Your task to perform on an android device: change your default location settings in chrome Image 0: 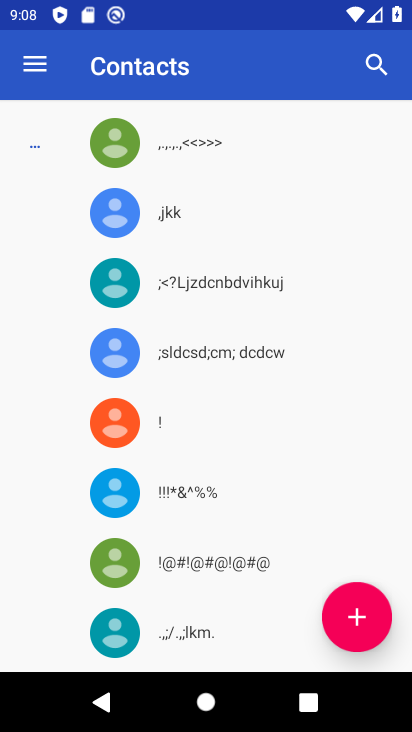
Step 0: press home button
Your task to perform on an android device: change your default location settings in chrome Image 1: 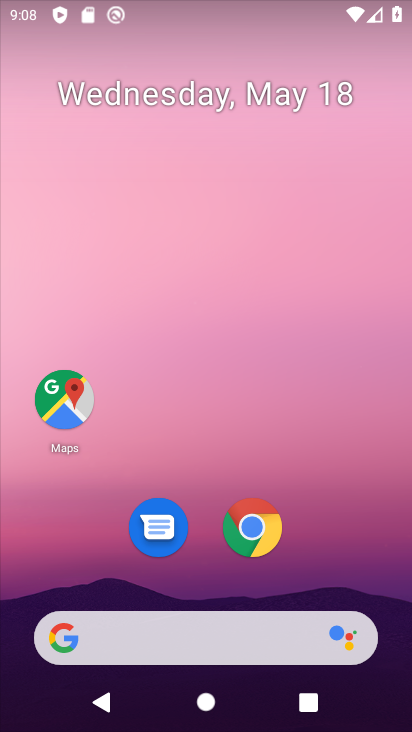
Step 1: click (261, 525)
Your task to perform on an android device: change your default location settings in chrome Image 2: 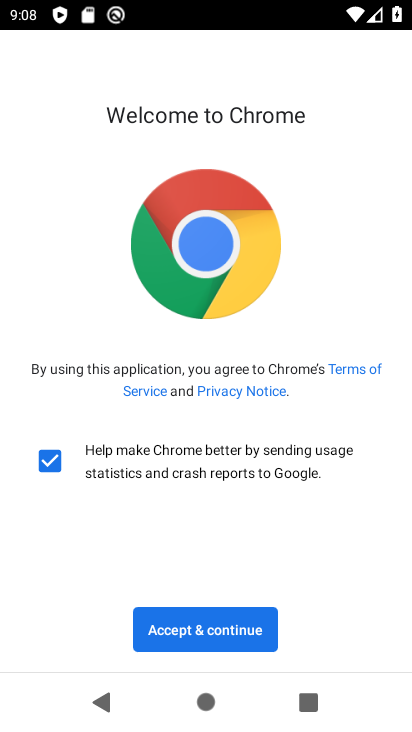
Step 2: click (233, 621)
Your task to perform on an android device: change your default location settings in chrome Image 3: 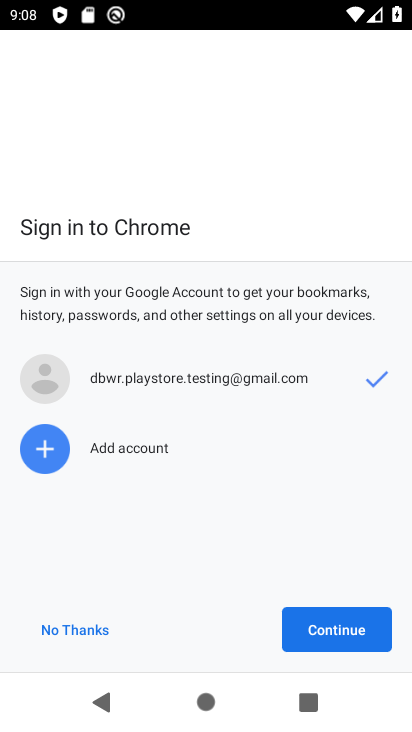
Step 3: click (347, 633)
Your task to perform on an android device: change your default location settings in chrome Image 4: 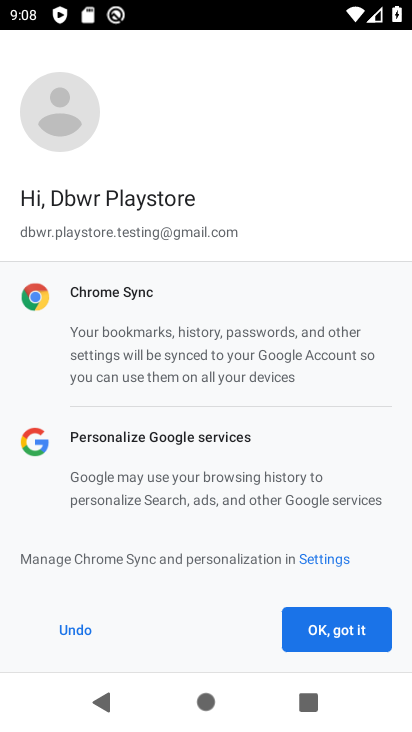
Step 4: click (347, 633)
Your task to perform on an android device: change your default location settings in chrome Image 5: 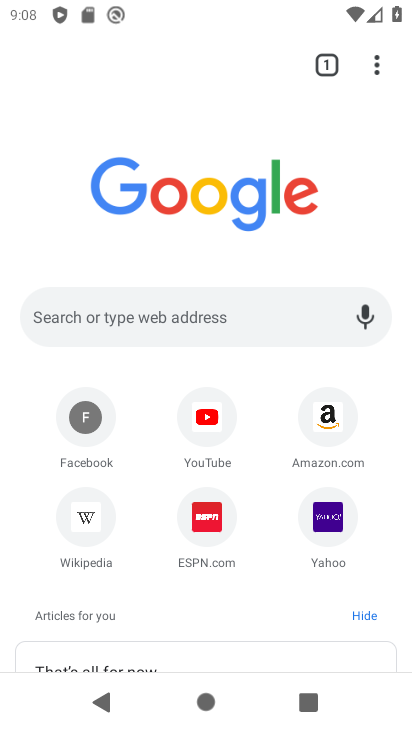
Step 5: click (380, 73)
Your task to perform on an android device: change your default location settings in chrome Image 6: 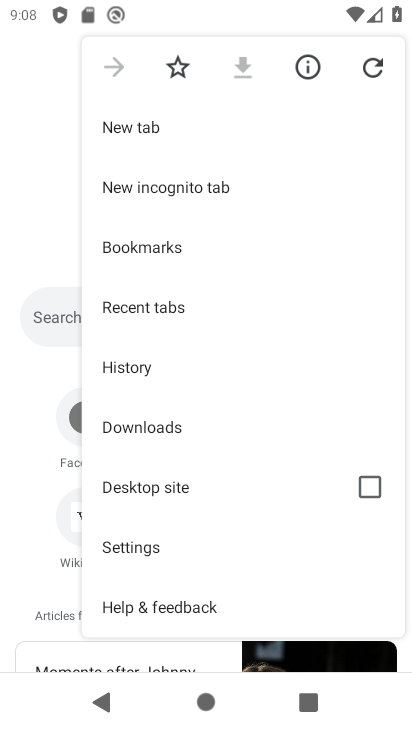
Step 6: click (158, 545)
Your task to perform on an android device: change your default location settings in chrome Image 7: 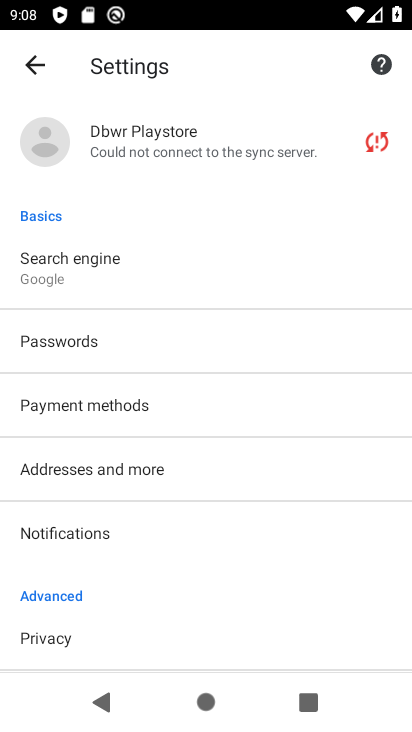
Step 7: drag from (177, 617) to (185, 378)
Your task to perform on an android device: change your default location settings in chrome Image 8: 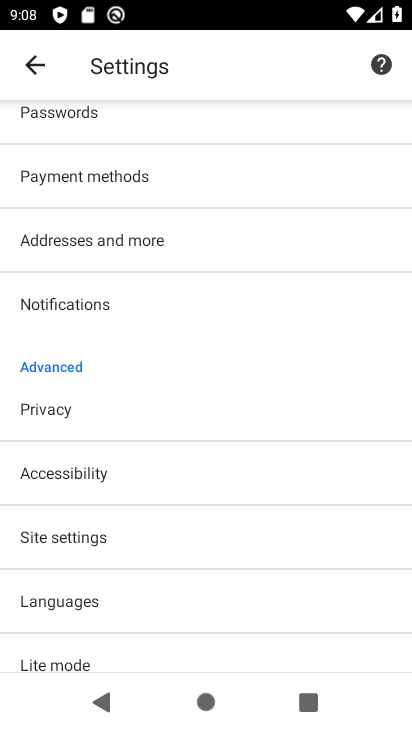
Step 8: click (89, 536)
Your task to perform on an android device: change your default location settings in chrome Image 9: 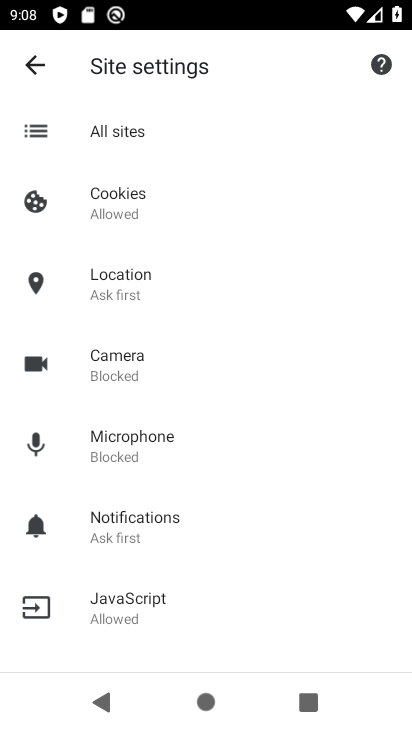
Step 9: click (123, 276)
Your task to perform on an android device: change your default location settings in chrome Image 10: 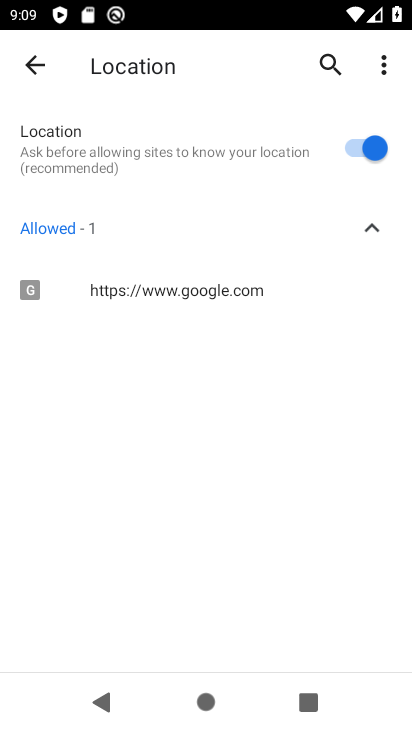
Step 10: click (346, 141)
Your task to perform on an android device: change your default location settings in chrome Image 11: 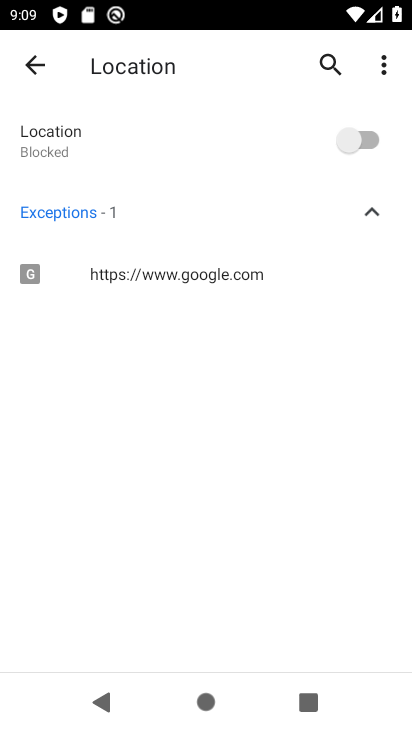
Step 11: task complete